Your task to perform on an android device: What's on my calendar today? Image 0: 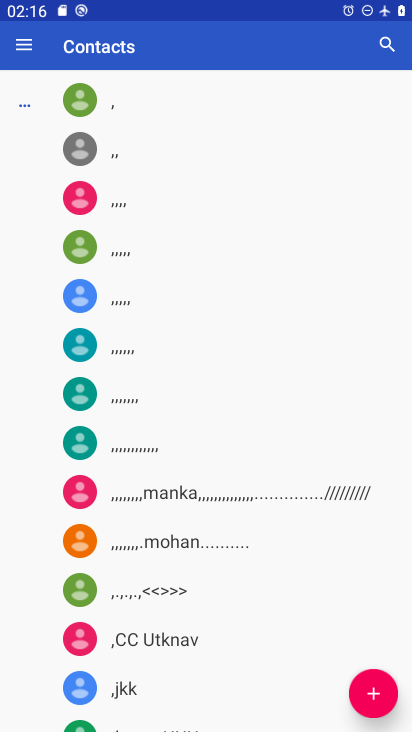
Step 0: press home button
Your task to perform on an android device: What's on my calendar today? Image 1: 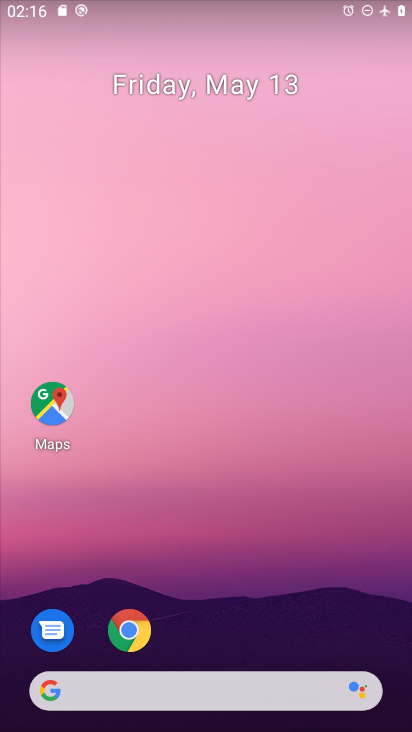
Step 1: drag from (240, 713) to (269, 235)
Your task to perform on an android device: What's on my calendar today? Image 2: 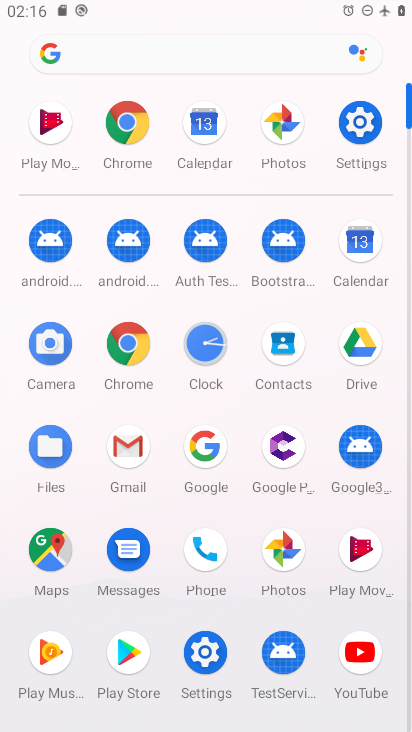
Step 2: click (365, 255)
Your task to perform on an android device: What's on my calendar today? Image 3: 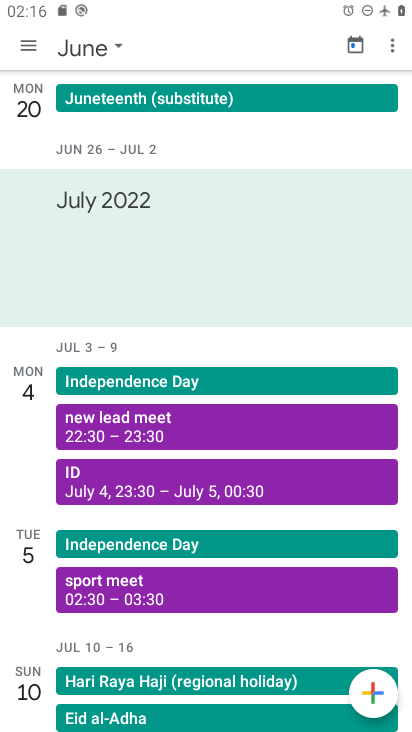
Step 3: click (30, 44)
Your task to perform on an android device: What's on my calendar today? Image 4: 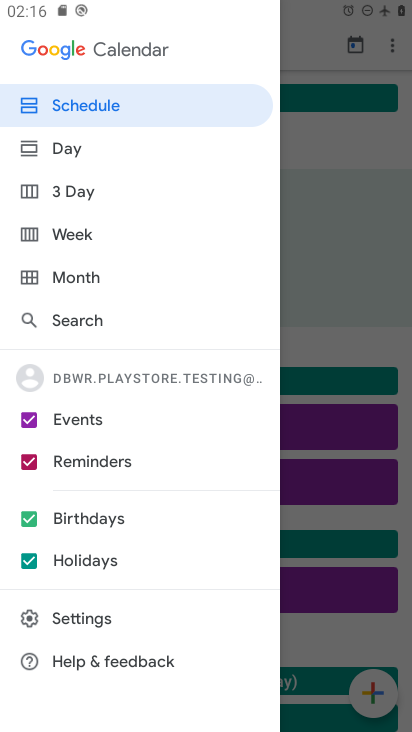
Step 4: click (95, 278)
Your task to perform on an android device: What's on my calendar today? Image 5: 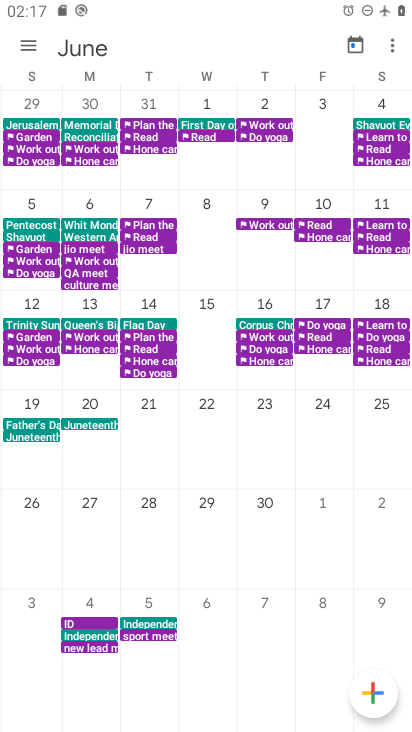
Step 5: drag from (28, 358) to (410, 264)
Your task to perform on an android device: What's on my calendar today? Image 6: 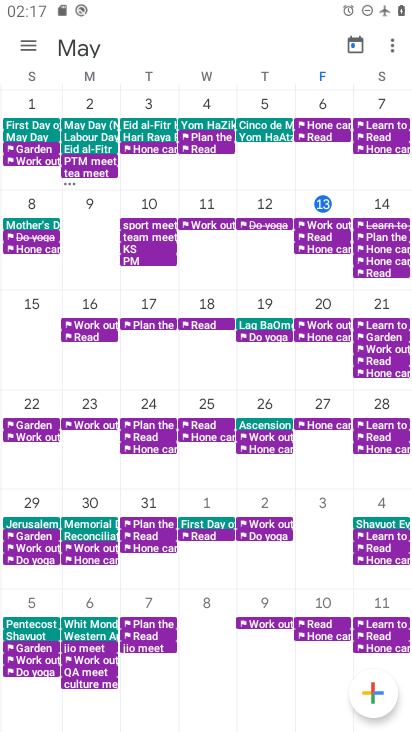
Step 6: click (309, 208)
Your task to perform on an android device: What's on my calendar today? Image 7: 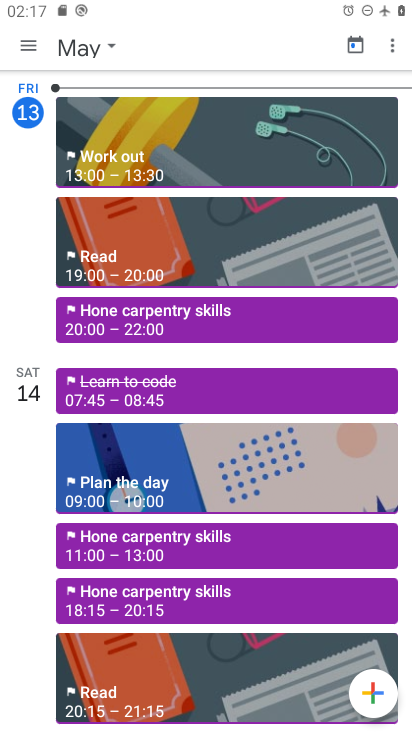
Step 7: task complete